Your task to perform on an android device: Empty the shopping cart on newegg.com. Add razer huntsman to the cart on newegg.com Image 0: 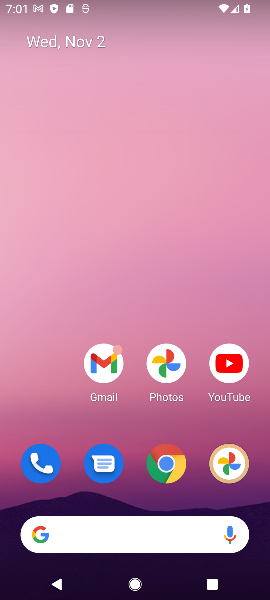
Step 0: click (164, 466)
Your task to perform on an android device: Empty the shopping cart on newegg.com. Add razer huntsman to the cart on newegg.com Image 1: 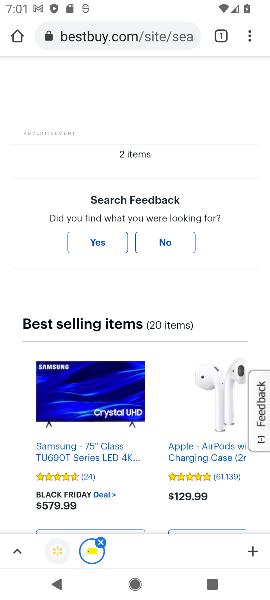
Step 1: click (91, 42)
Your task to perform on an android device: Empty the shopping cart on newegg.com. Add razer huntsman to the cart on newegg.com Image 2: 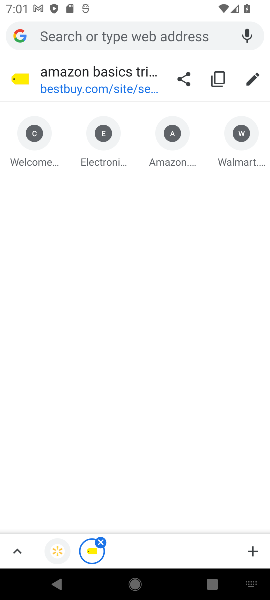
Step 2: type "newegg.com"
Your task to perform on an android device: Empty the shopping cart on newegg.com. Add razer huntsman to the cart on newegg.com Image 3: 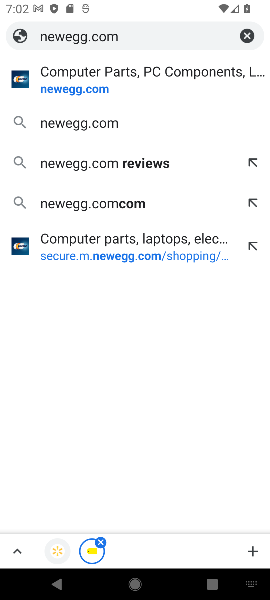
Step 3: click (79, 88)
Your task to perform on an android device: Empty the shopping cart on newegg.com. Add razer huntsman to the cart on newegg.com Image 4: 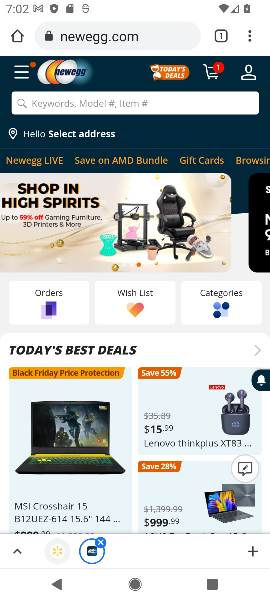
Step 4: click (214, 75)
Your task to perform on an android device: Empty the shopping cart on newegg.com. Add razer huntsman to the cart on newegg.com Image 5: 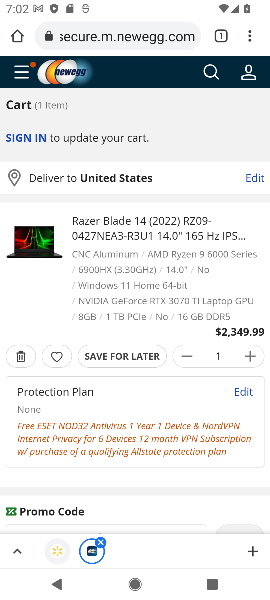
Step 5: click (23, 357)
Your task to perform on an android device: Empty the shopping cart on newegg.com. Add razer huntsman to the cart on newegg.com Image 6: 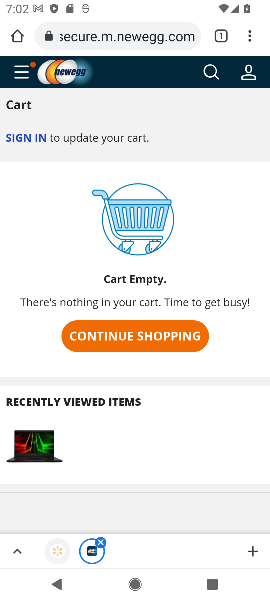
Step 6: press back button
Your task to perform on an android device: Empty the shopping cart on newegg.com. Add razer huntsman to the cart on newegg.com Image 7: 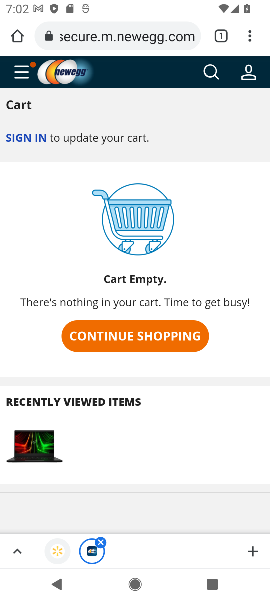
Step 7: click (208, 69)
Your task to perform on an android device: Empty the shopping cart on newegg.com. Add razer huntsman to the cart on newegg.com Image 8: 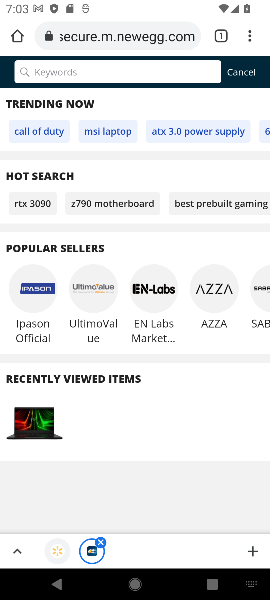
Step 8: type "razer huntsman"
Your task to perform on an android device: Empty the shopping cart on newegg.com. Add razer huntsman to the cart on newegg.com Image 9: 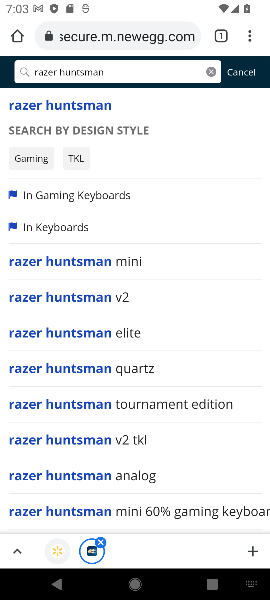
Step 9: click (86, 117)
Your task to perform on an android device: Empty the shopping cart on newegg.com. Add razer huntsman to the cart on newegg.com Image 10: 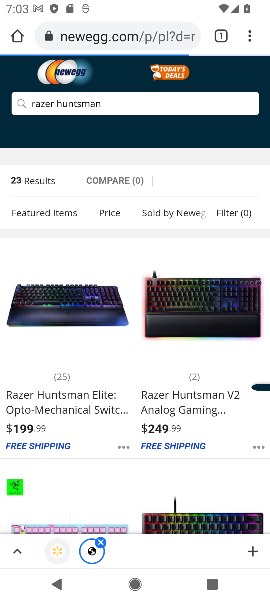
Step 10: click (74, 108)
Your task to perform on an android device: Empty the shopping cart on newegg.com. Add razer huntsman to the cart on newegg.com Image 11: 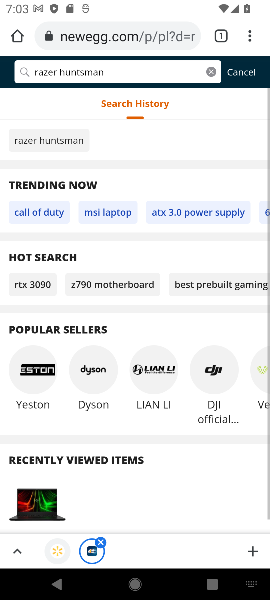
Step 11: click (97, 73)
Your task to perform on an android device: Empty the shopping cart on newegg.com. Add razer huntsman to the cart on newegg.com Image 12: 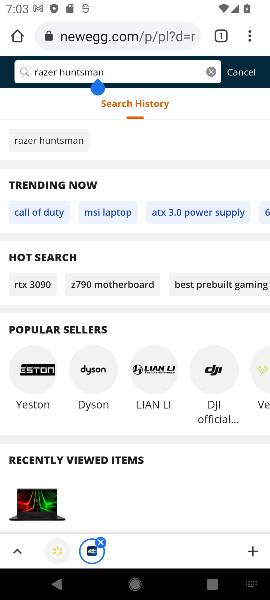
Step 12: click (65, 141)
Your task to perform on an android device: Empty the shopping cart on newegg.com. Add razer huntsman to the cart on newegg.com Image 13: 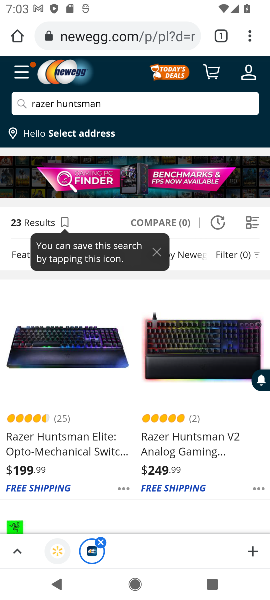
Step 13: click (60, 389)
Your task to perform on an android device: Empty the shopping cart on newegg.com. Add razer huntsman to the cart on newegg.com Image 14: 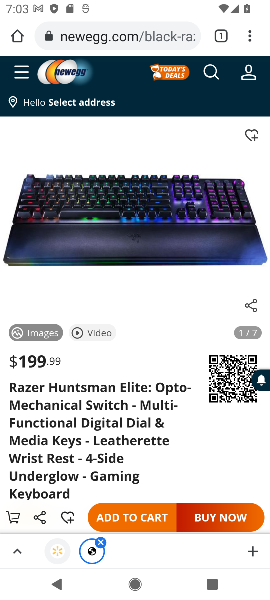
Step 14: click (133, 519)
Your task to perform on an android device: Empty the shopping cart on newegg.com. Add razer huntsman to the cart on newegg.com Image 15: 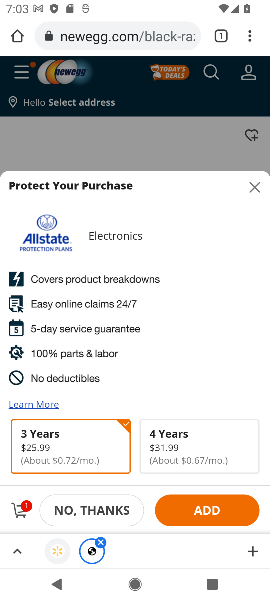
Step 15: task complete